Your task to perform on an android device: install app "Microsoft Excel" Image 0: 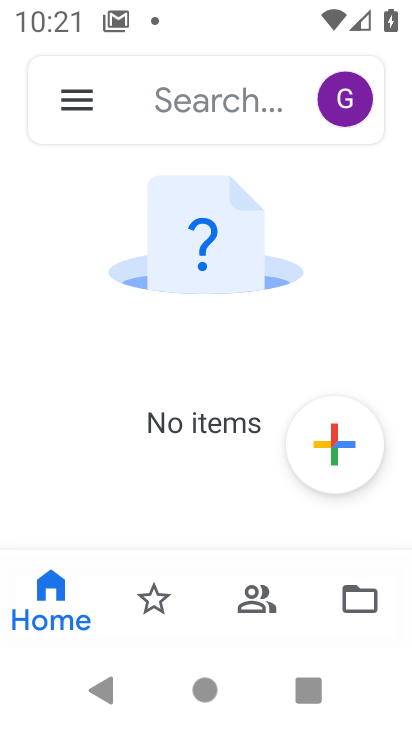
Step 0: press home button
Your task to perform on an android device: install app "Microsoft Excel" Image 1: 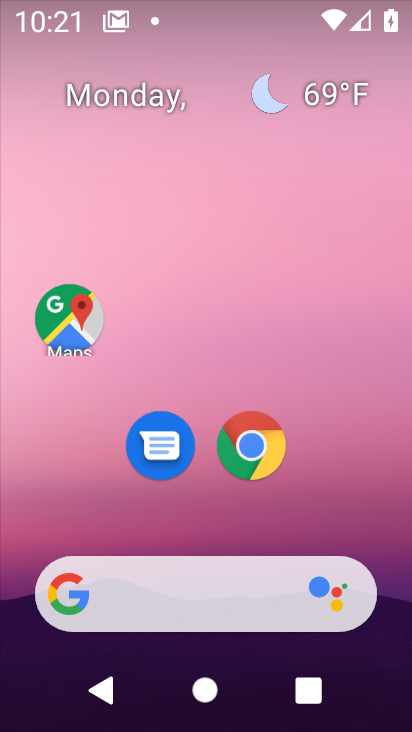
Step 1: drag from (240, 646) to (229, 105)
Your task to perform on an android device: install app "Microsoft Excel" Image 2: 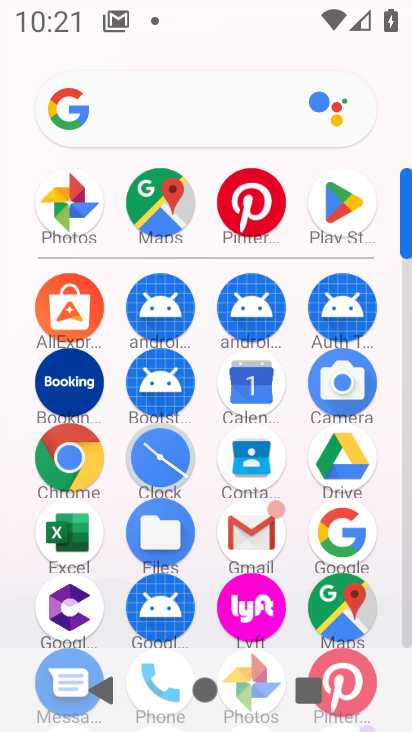
Step 2: click (327, 215)
Your task to perform on an android device: install app "Microsoft Excel" Image 3: 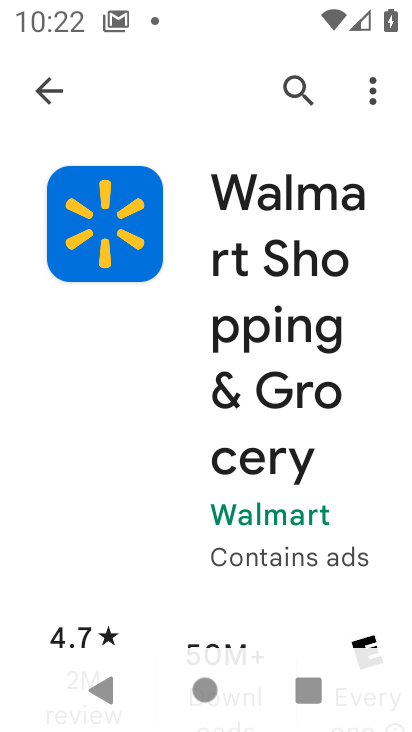
Step 3: click (30, 99)
Your task to perform on an android device: install app "Microsoft Excel" Image 4: 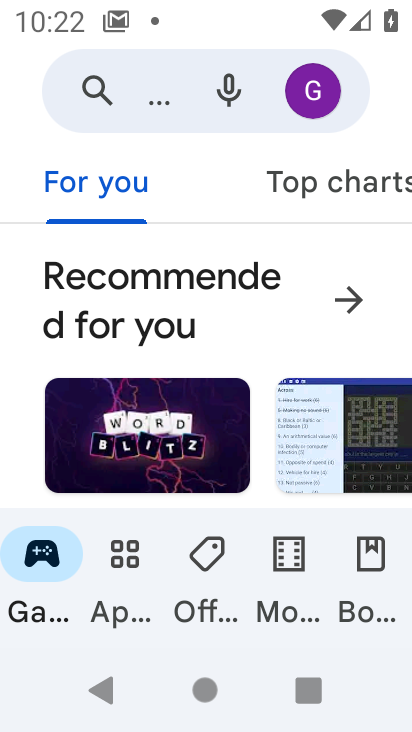
Step 4: click (89, 88)
Your task to perform on an android device: install app "Microsoft Excel" Image 5: 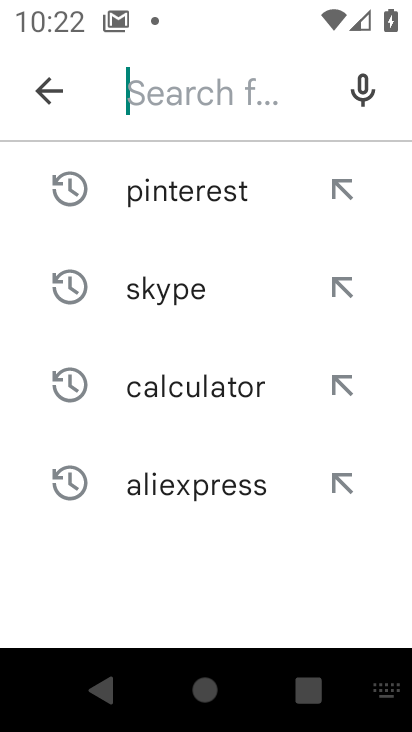
Step 5: type "Microsoft Excel"
Your task to perform on an android device: install app "Microsoft Excel" Image 6: 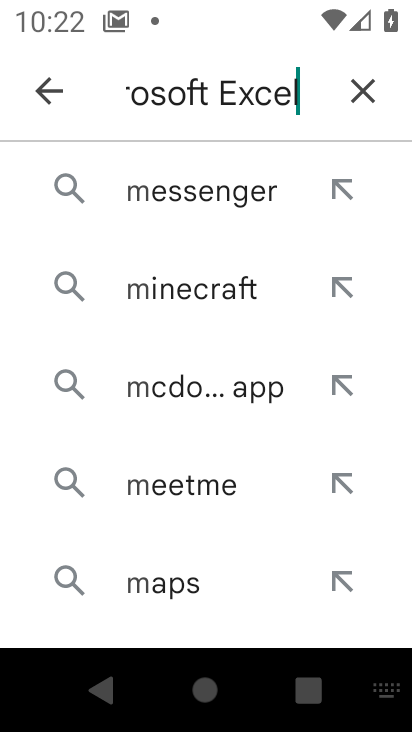
Step 6: type ""
Your task to perform on an android device: install app "Microsoft Excel" Image 7: 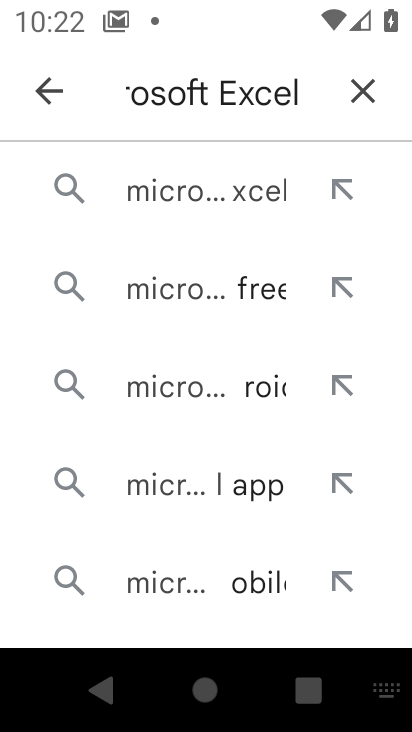
Step 7: click (234, 188)
Your task to perform on an android device: install app "Microsoft Excel" Image 8: 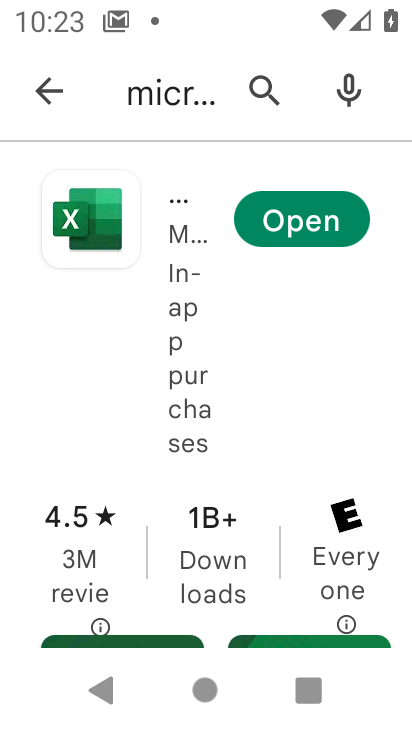
Step 8: task complete